Your task to perform on an android device: Go to location settings Image 0: 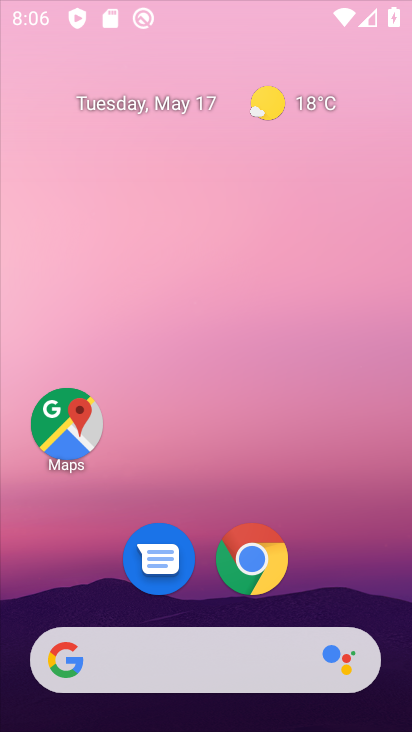
Step 0: drag from (205, 639) to (182, 36)
Your task to perform on an android device: Go to location settings Image 1: 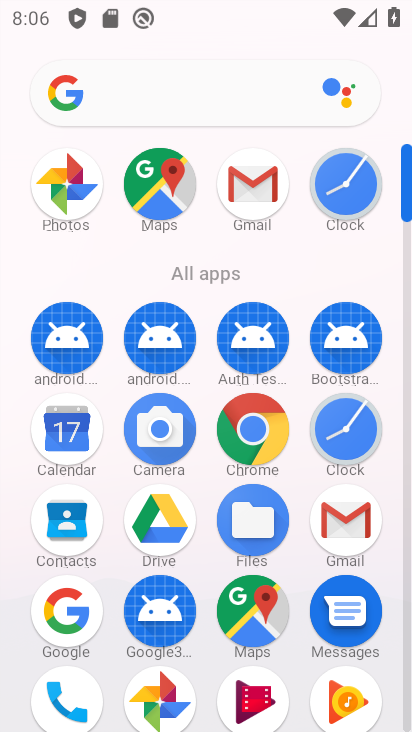
Step 1: drag from (211, 612) to (206, 47)
Your task to perform on an android device: Go to location settings Image 2: 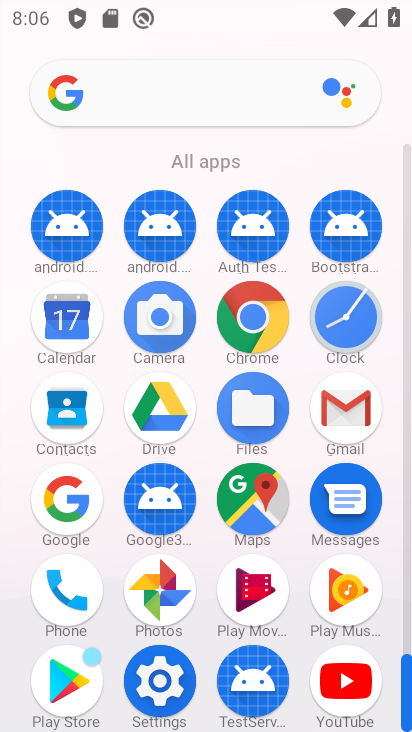
Step 2: click (161, 677)
Your task to perform on an android device: Go to location settings Image 3: 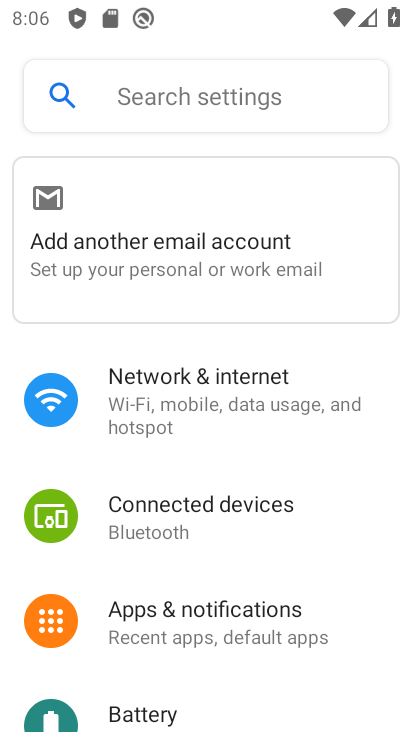
Step 3: drag from (198, 599) to (193, 223)
Your task to perform on an android device: Go to location settings Image 4: 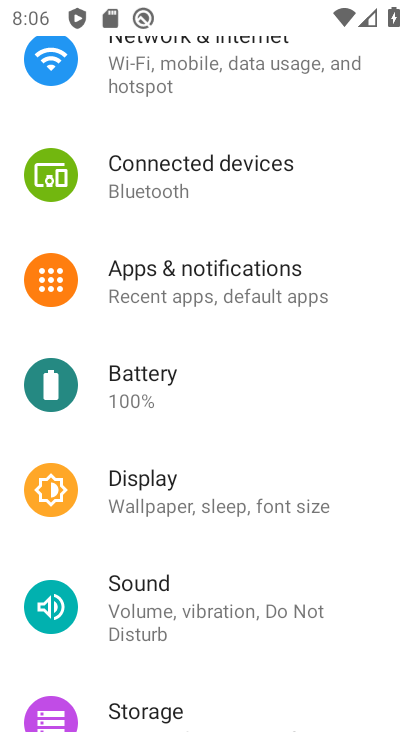
Step 4: drag from (178, 669) to (188, 355)
Your task to perform on an android device: Go to location settings Image 5: 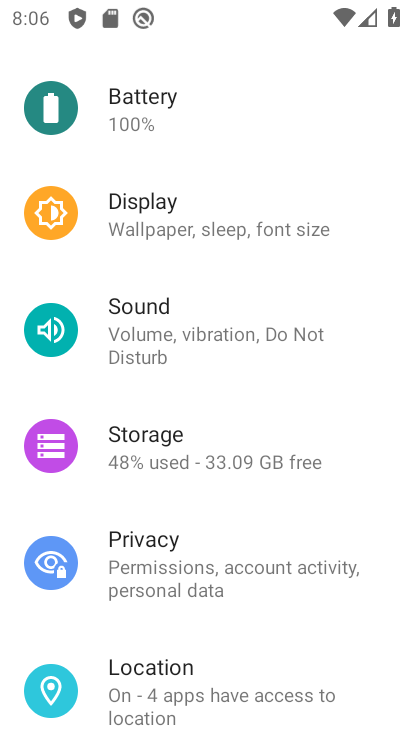
Step 5: click (169, 664)
Your task to perform on an android device: Go to location settings Image 6: 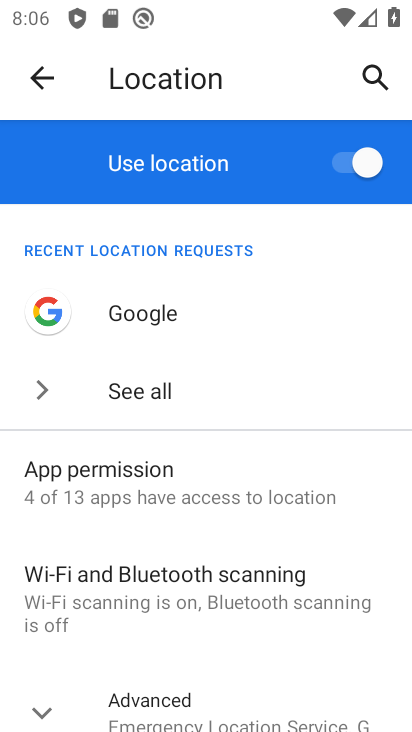
Step 6: task complete